Your task to perform on an android device: Open Wikipedia Image 0: 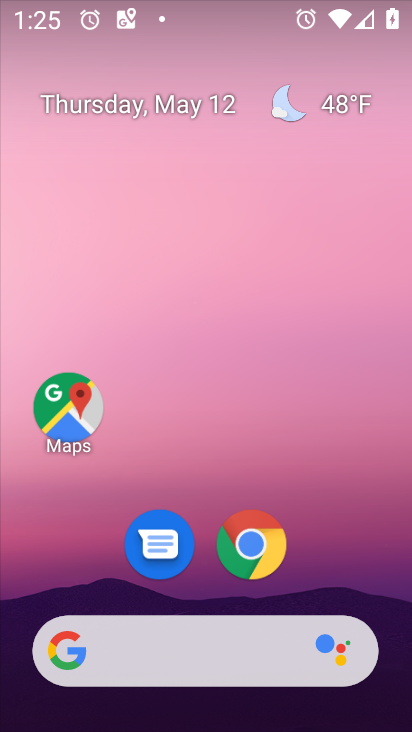
Step 0: click (251, 539)
Your task to perform on an android device: Open Wikipedia Image 1: 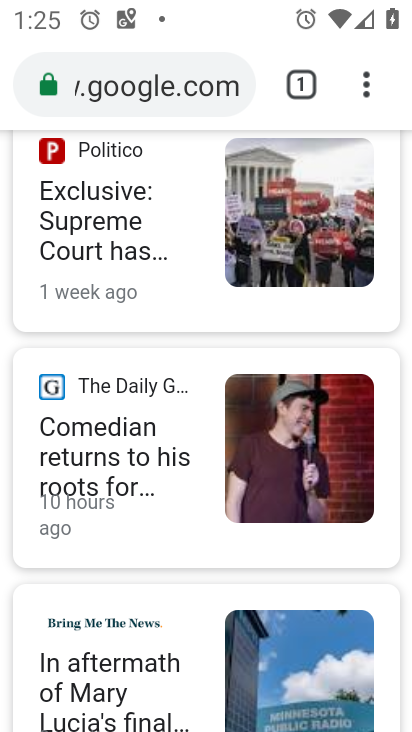
Step 1: click (162, 85)
Your task to perform on an android device: Open Wikipedia Image 2: 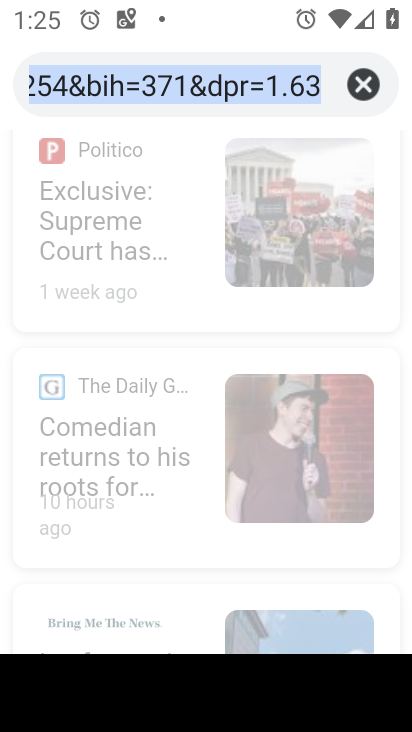
Step 2: click (365, 84)
Your task to perform on an android device: Open Wikipedia Image 3: 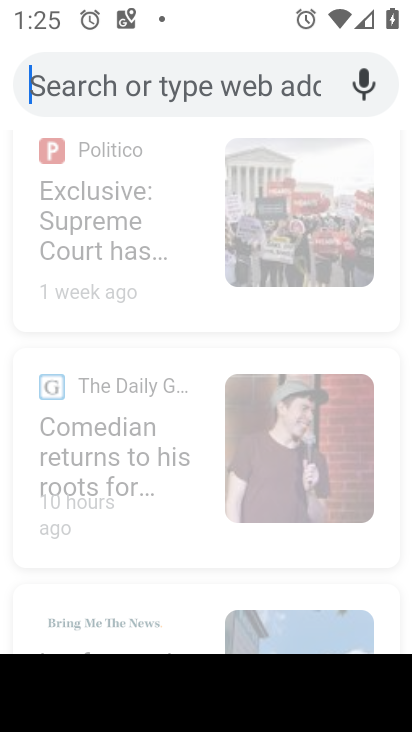
Step 3: type "Wikipedia"
Your task to perform on an android device: Open Wikipedia Image 4: 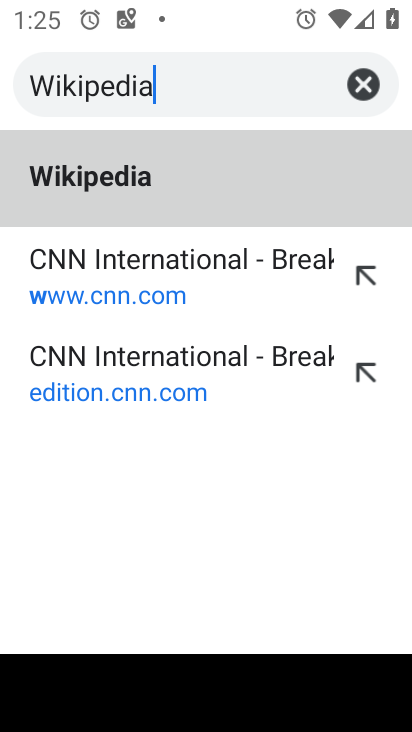
Step 4: type ""
Your task to perform on an android device: Open Wikipedia Image 5: 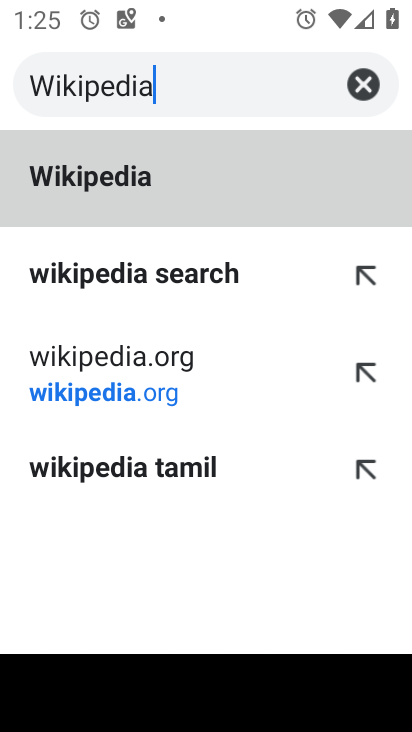
Step 5: click (91, 377)
Your task to perform on an android device: Open Wikipedia Image 6: 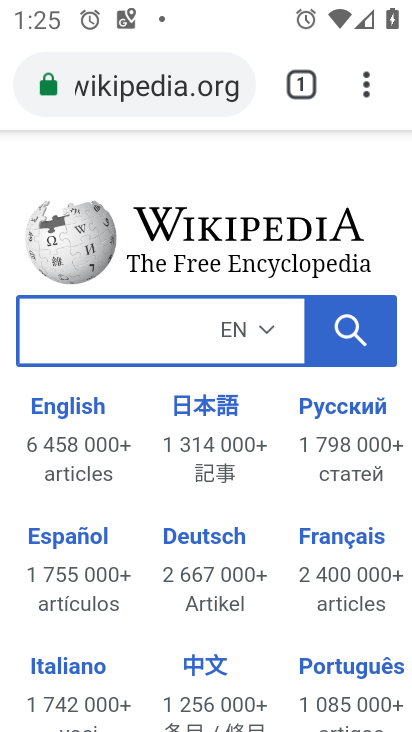
Step 6: task complete